Your task to perform on an android device: Open the web browser Image 0: 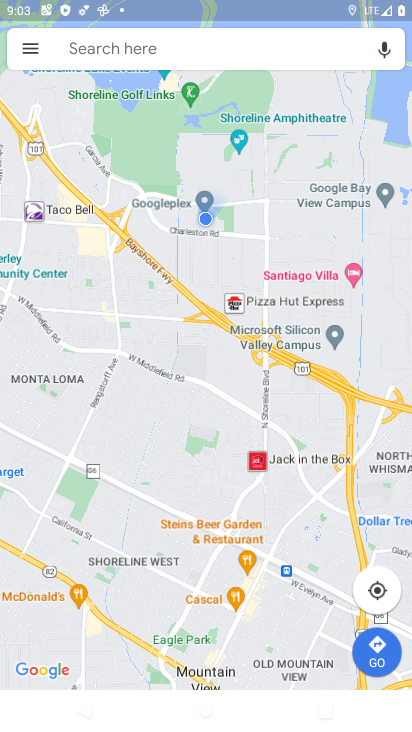
Step 0: press home button
Your task to perform on an android device: Open the web browser Image 1: 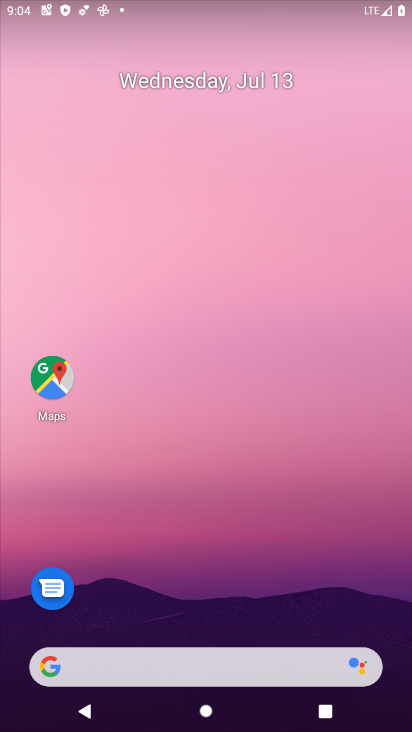
Step 1: drag from (155, 711) to (110, 3)
Your task to perform on an android device: Open the web browser Image 2: 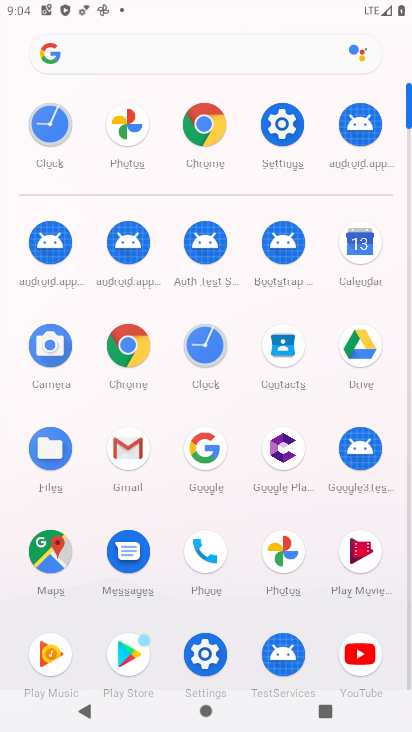
Step 2: click (211, 115)
Your task to perform on an android device: Open the web browser Image 3: 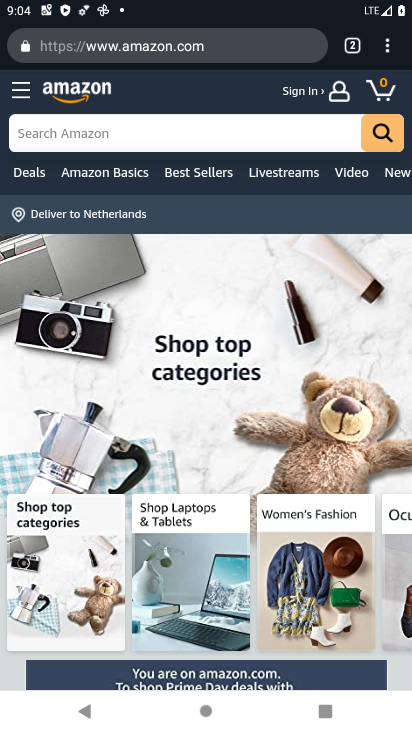
Step 3: task complete